Your task to perform on an android device: open app "Google Pay: Save, Pay, Manage" (install if not already installed) Image 0: 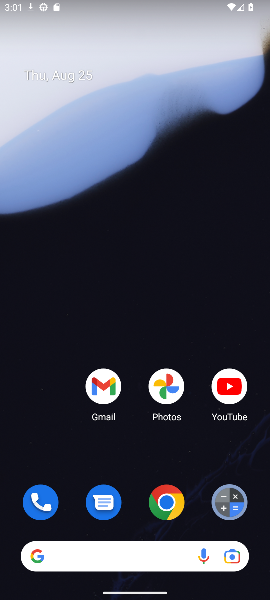
Step 0: drag from (131, 517) to (138, 68)
Your task to perform on an android device: open app "Google Pay: Save, Pay, Manage" (install if not already installed) Image 1: 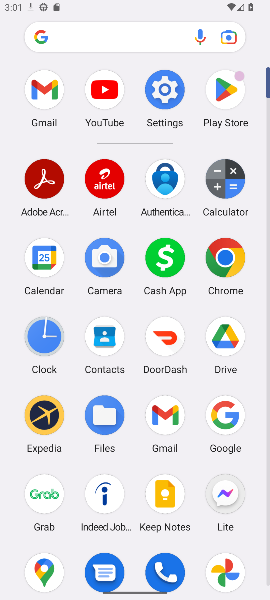
Step 1: click (232, 74)
Your task to perform on an android device: open app "Google Pay: Save, Pay, Manage" (install if not already installed) Image 2: 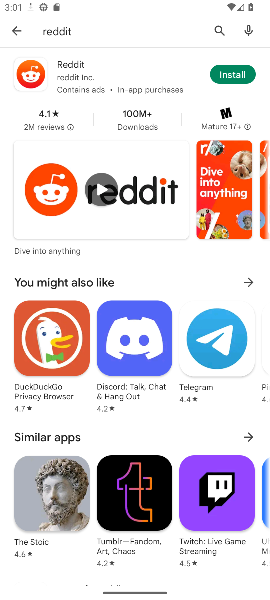
Step 2: click (214, 32)
Your task to perform on an android device: open app "Google Pay: Save, Pay, Manage" (install if not already installed) Image 3: 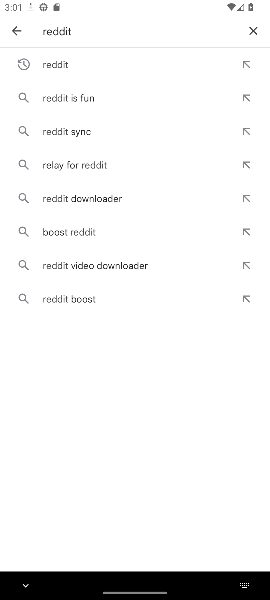
Step 3: click (256, 27)
Your task to perform on an android device: open app "Google Pay: Save, Pay, Manage" (install if not already installed) Image 4: 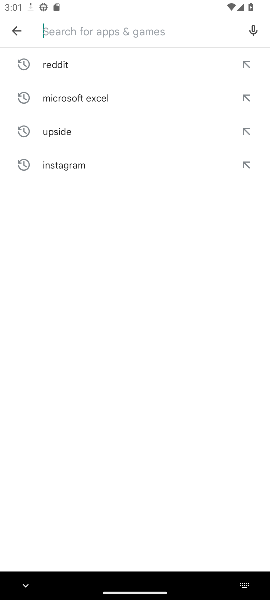
Step 4: type "google pay"
Your task to perform on an android device: open app "Google Pay: Save, Pay, Manage" (install if not already installed) Image 5: 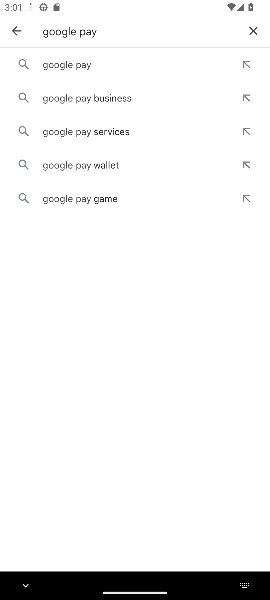
Step 5: click (137, 58)
Your task to perform on an android device: open app "Google Pay: Save, Pay, Manage" (install if not already installed) Image 6: 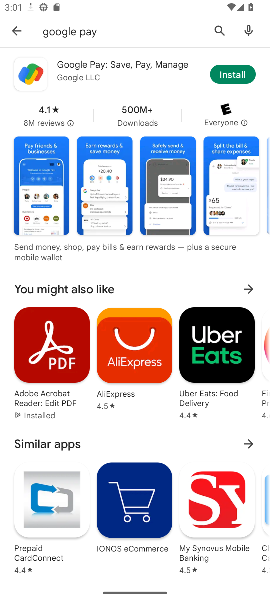
Step 6: click (238, 68)
Your task to perform on an android device: open app "Google Pay: Save, Pay, Manage" (install if not already installed) Image 7: 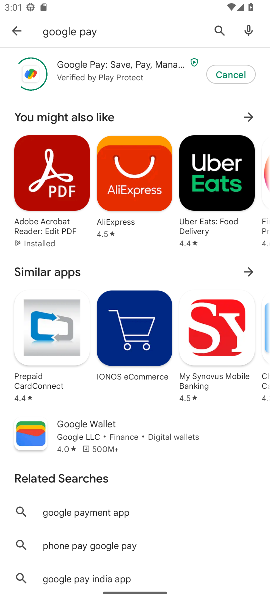
Step 7: task complete